Your task to perform on an android device: Is it going to rain tomorrow? Image 0: 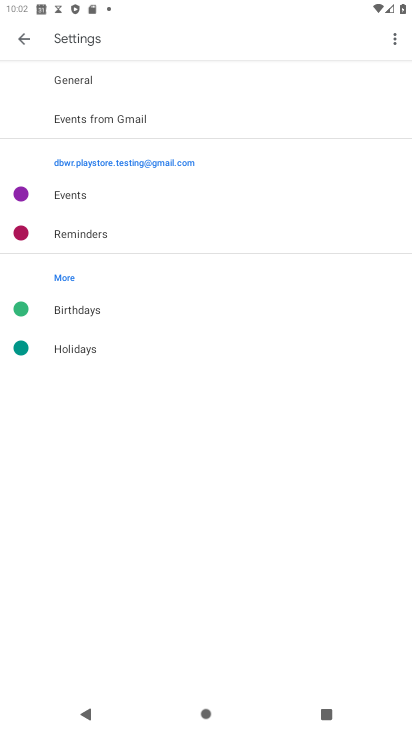
Step 0: press home button
Your task to perform on an android device: Is it going to rain tomorrow? Image 1: 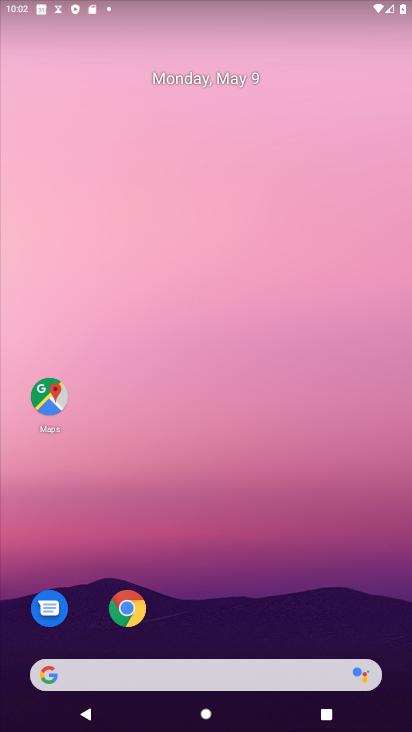
Step 1: click (111, 666)
Your task to perform on an android device: Is it going to rain tomorrow? Image 2: 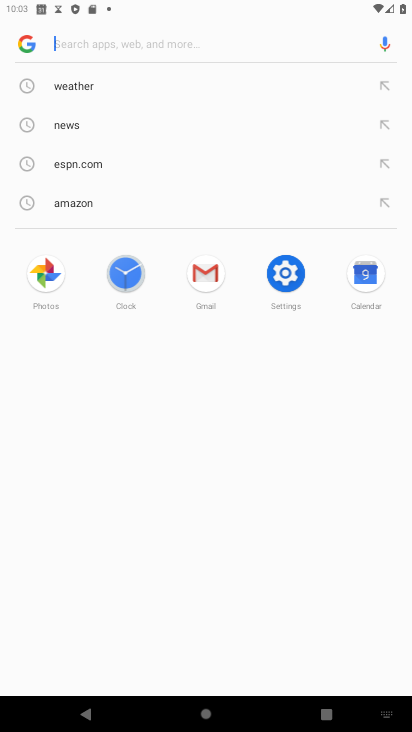
Step 2: type "Is it going to rain tomorrow?"
Your task to perform on an android device: Is it going to rain tomorrow? Image 3: 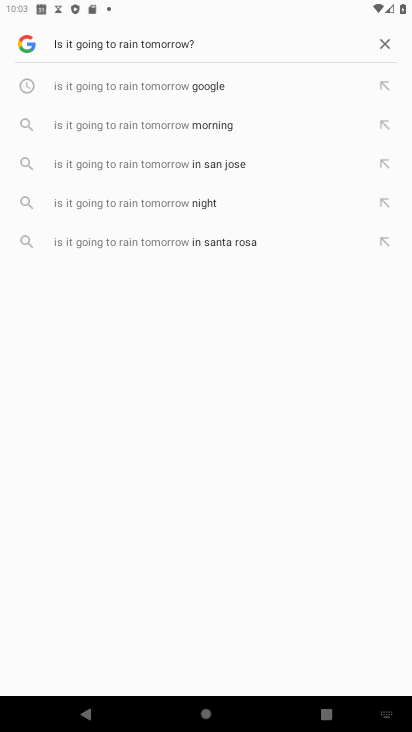
Step 3: click (163, 81)
Your task to perform on an android device: Is it going to rain tomorrow? Image 4: 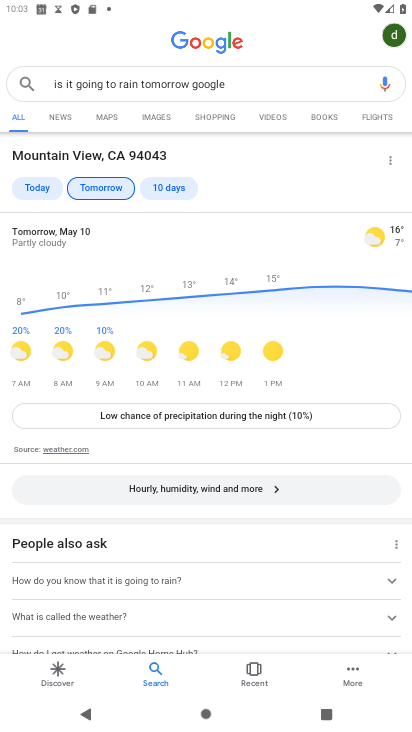
Step 4: task complete